Your task to perform on an android device: toggle show notifications on the lock screen Image 0: 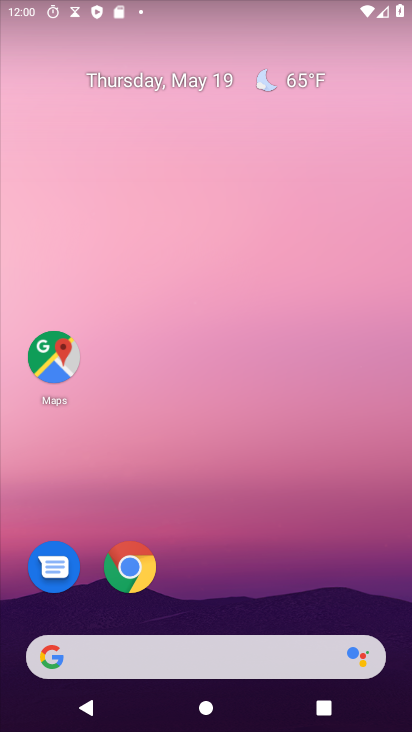
Step 0: drag from (292, 508) to (265, 142)
Your task to perform on an android device: toggle show notifications on the lock screen Image 1: 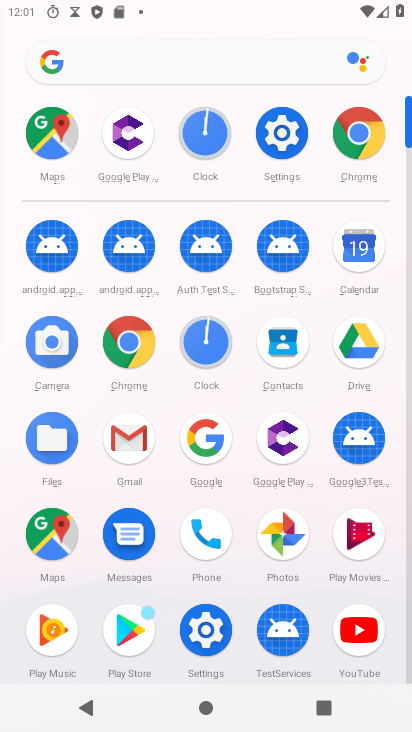
Step 1: click (279, 135)
Your task to perform on an android device: toggle show notifications on the lock screen Image 2: 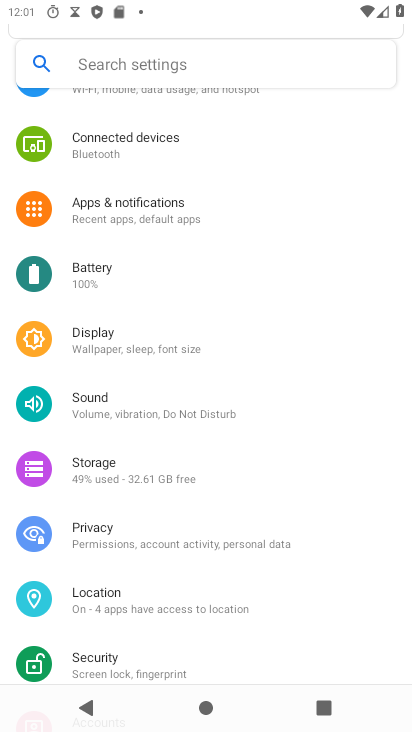
Step 2: click (150, 227)
Your task to perform on an android device: toggle show notifications on the lock screen Image 3: 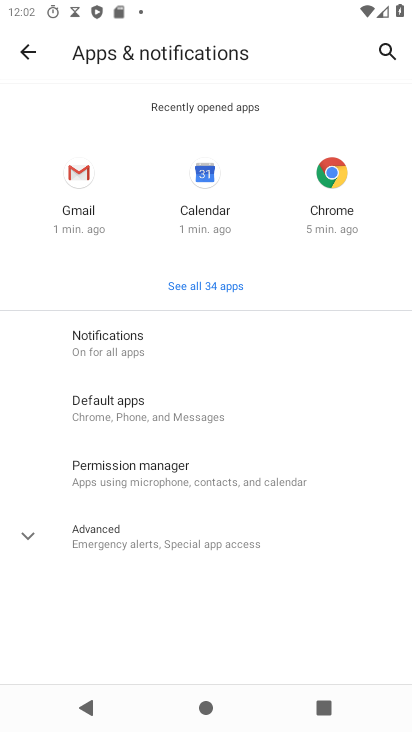
Step 3: click (168, 355)
Your task to perform on an android device: toggle show notifications on the lock screen Image 4: 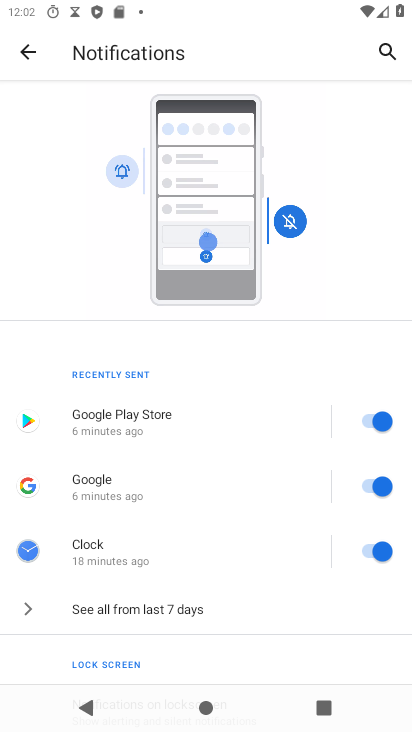
Step 4: drag from (223, 587) to (210, 389)
Your task to perform on an android device: toggle show notifications on the lock screen Image 5: 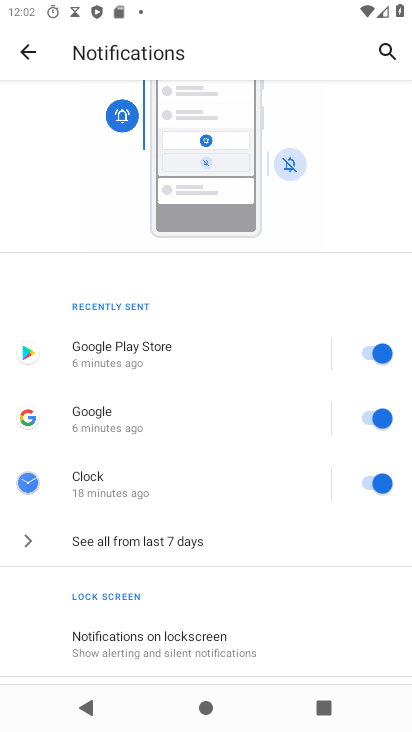
Step 5: click (219, 648)
Your task to perform on an android device: toggle show notifications on the lock screen Image 6: 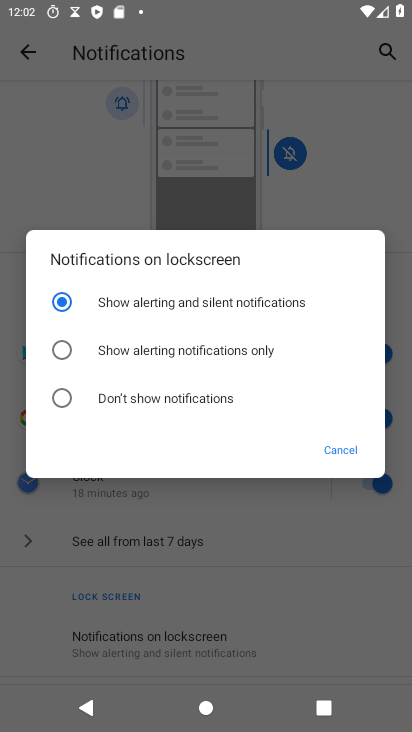
Step 6: click (57, 347)
Your task to perform on an android device: toggle show notifications on the lock screen Image 7: 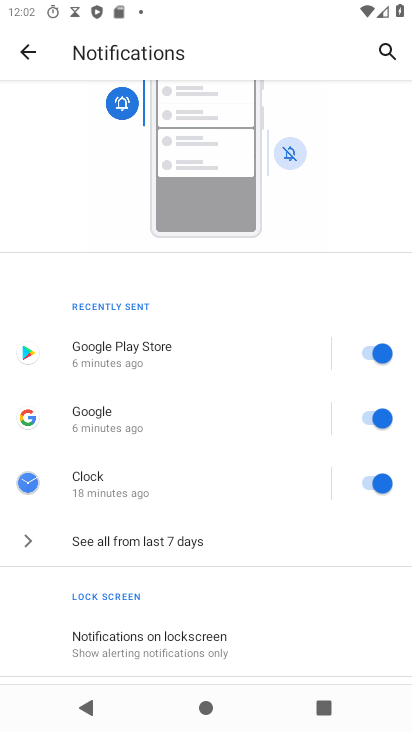
Step 7: task complete